Your task to perform on an android device: open wifi settings Image 0: 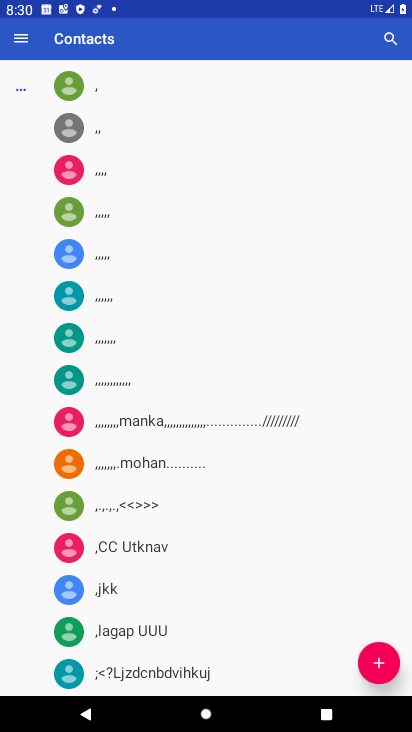
Step 0: press home button
Your task to perform on an android device: open wifi settings Image 1: 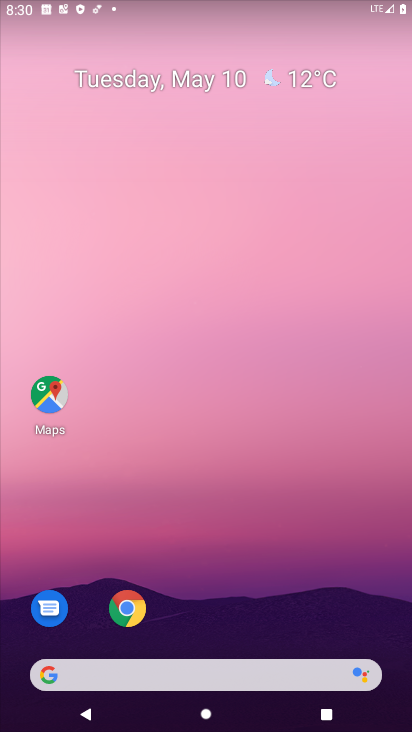
Step 1: drag from (155, 673) to (233, 107)
Your task to perform on an android device: open wifi settings Image 2: 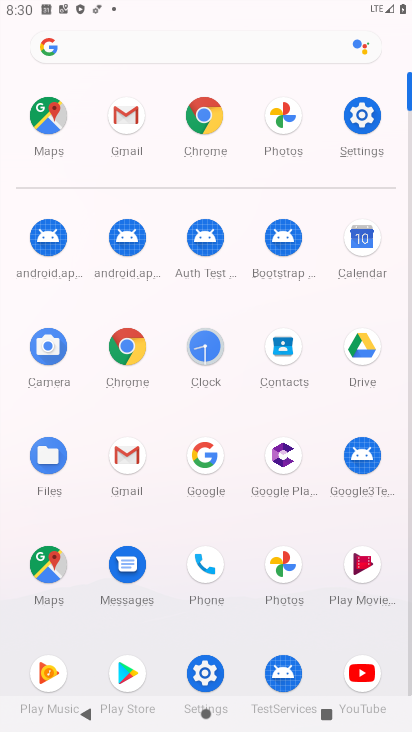
Step 2: click (354, 110)
Your task to perform on an android device: open wifi settings Image 3: 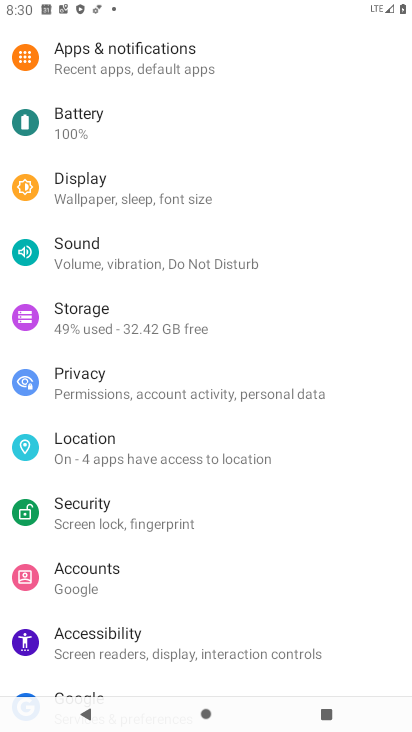
Step 3: drag from (229, 94) to (182, 411)
Your task to perform on an android device: open wifi settings Image 4: 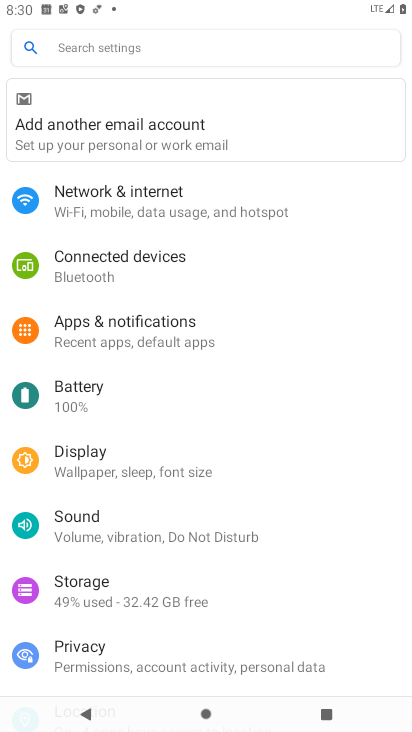
Step 4: click (167, 211)
Your task to perform on an android device: open wifi settings Image 5: 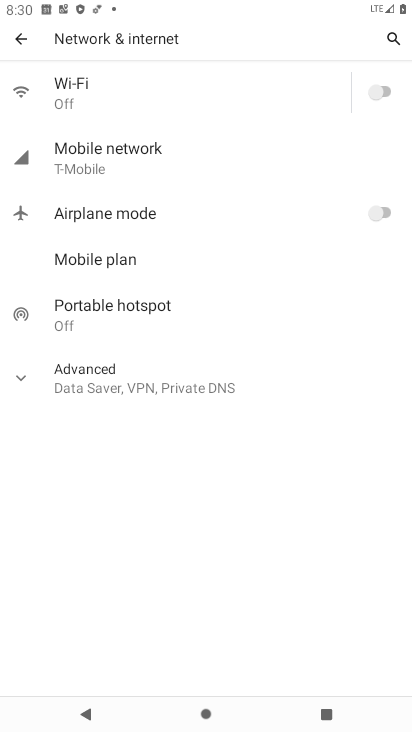
Step 5: click (90, 89)
Your task to perform on an android device: open wifi settings Image 6: 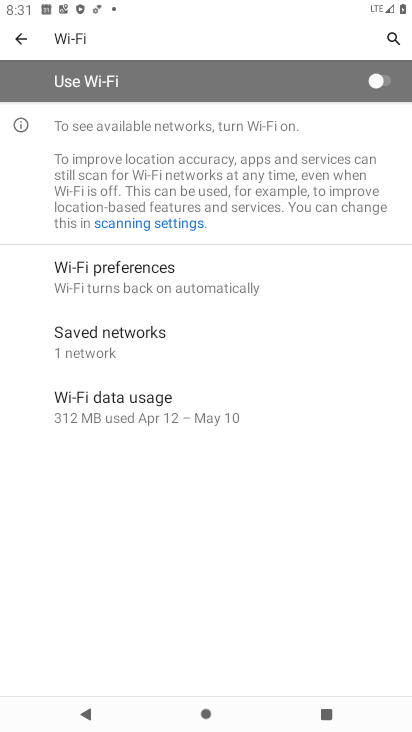
Step 6: task complete